Your task to perform on an android device: Search for sushi restaurants on Maps Image 0: 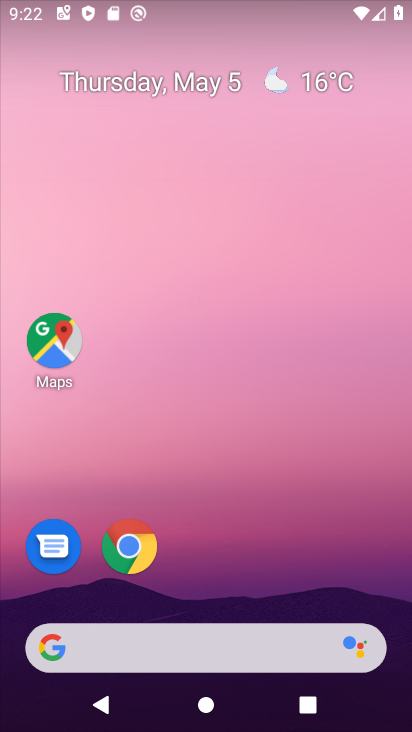
Step 0: drag from (264, 588) to (263, 82)
Your task to perform on an android device: Search for sushi restaurants on Maps Image 1: 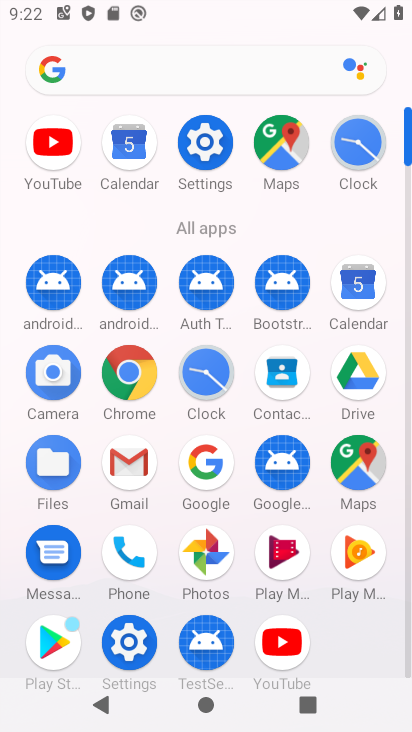
Step 1: click (279, 144)
Your task to perform on an android device: Search for sushi restaurants on Maps Image 2: 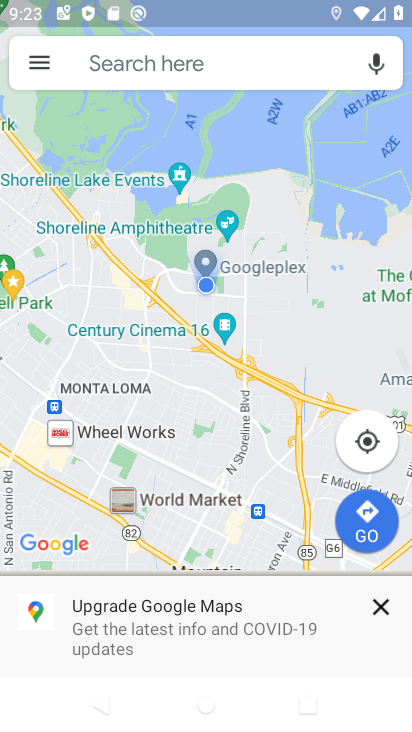
Step 2: click (196, 67)
Your task to perform on an android device: Search for sushi restaurants on Maps Image 3: 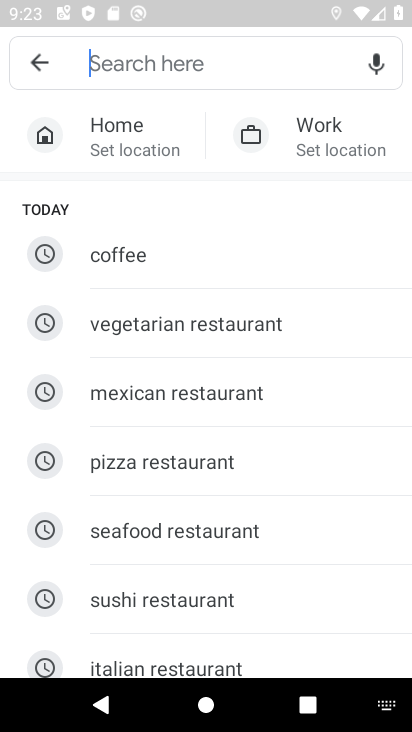
Step 3: type "sushi restaurants "
Your task to perform on an android device: Search for sushi restaurants on Maps Image 4: 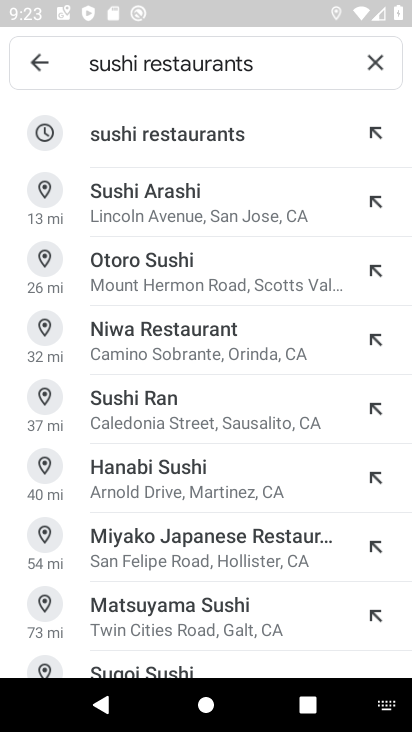
Step 4: click (153, 126)
Your task to perform on an android device: Search for sushi restaurants on Maps Image 5: 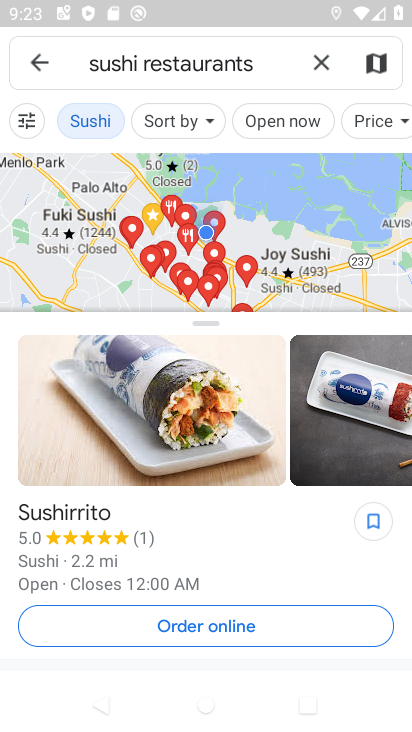
Step 5: task complete